Your task to perform on an android device: Open the stopwatch Image 0: 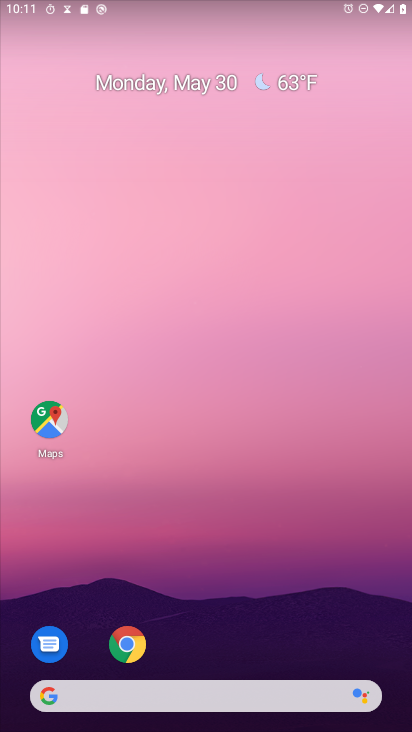
Step 0: drag from (212, 644) to (266, 85)
Your task to perform on an android device: Open the stopwatch Image 1: 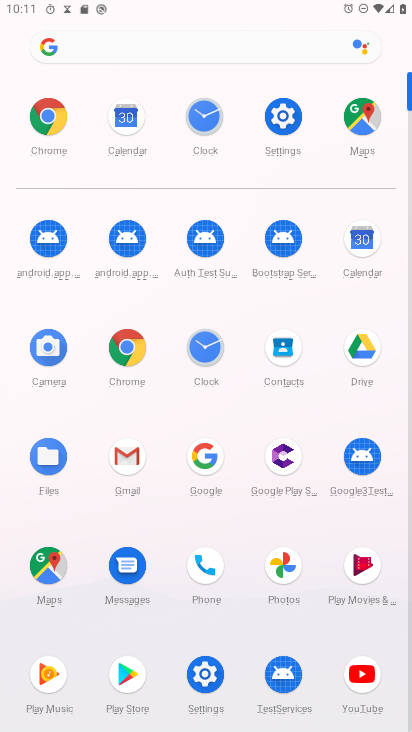
Step 1: click (208, 345)
Your task to perform on an android device: Open the stopwatch Image 2: 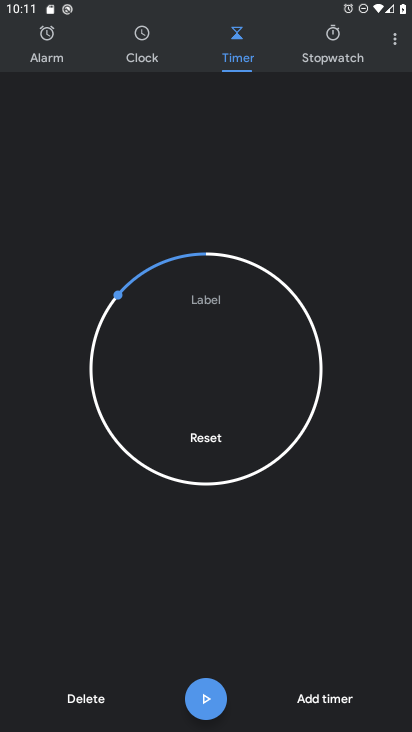
Step 2: click (333, 53)
Your task to perform on an android device: Open the stopwatch Image 3: 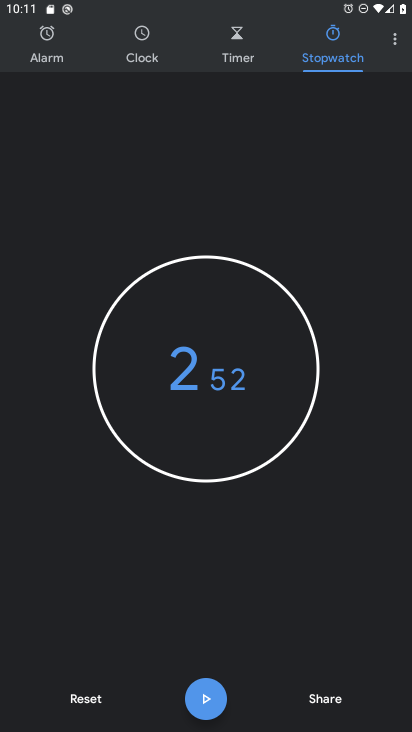
Step 3: click (201, 700)
Your task to perform on an android device: Open the stopwatch Image 4: 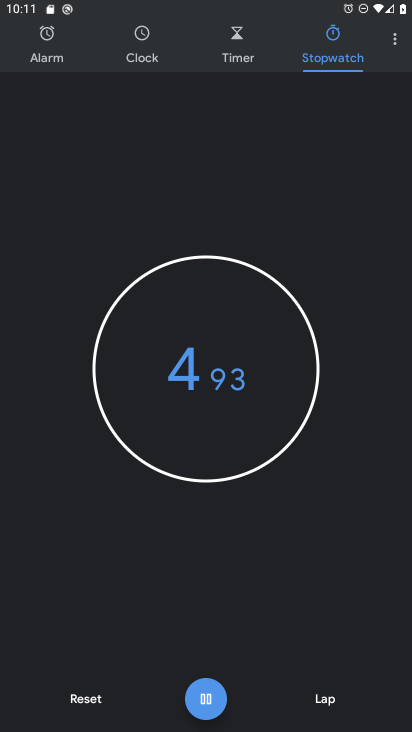
Step 4: click (203, 700)
Your task to perform on an android device: Open the stopwatch Image 5: 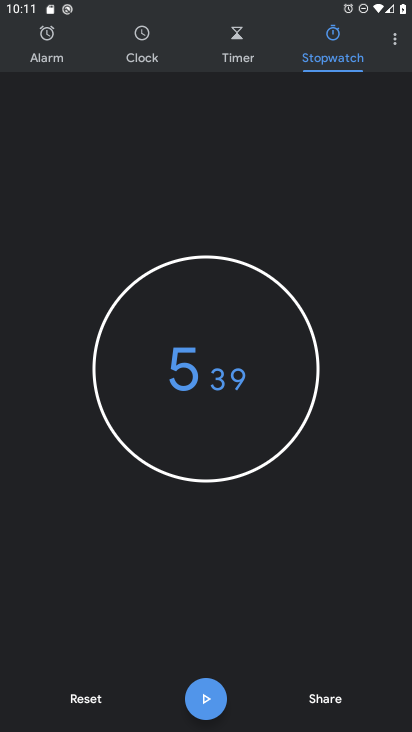
Step 5: task complete